Your task to perform on an android device: change timer sound Image 0: 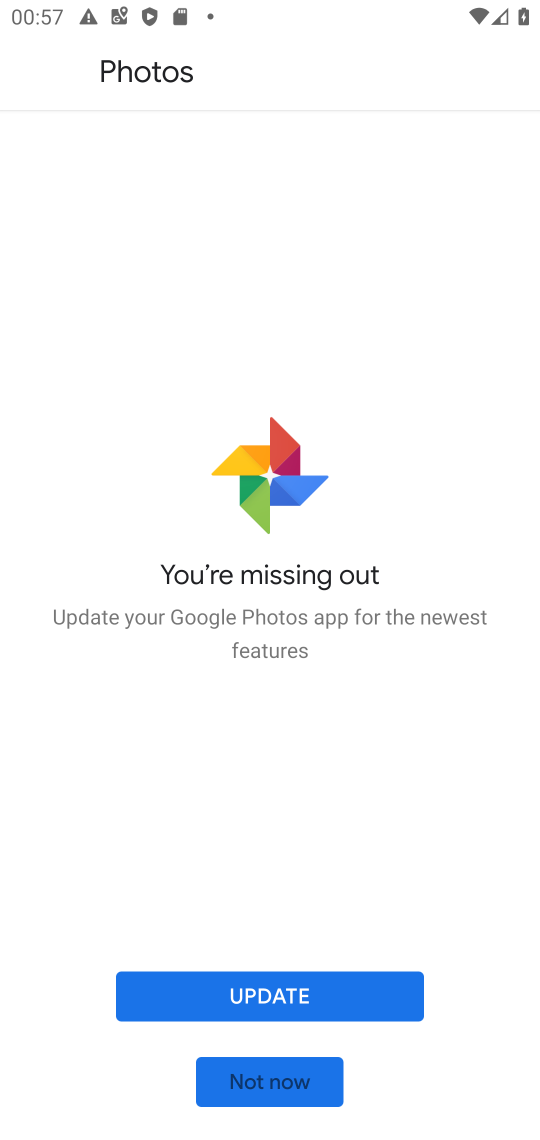
Step 0: press home button
Your task to perform on an android device: change timer sound Image 1: 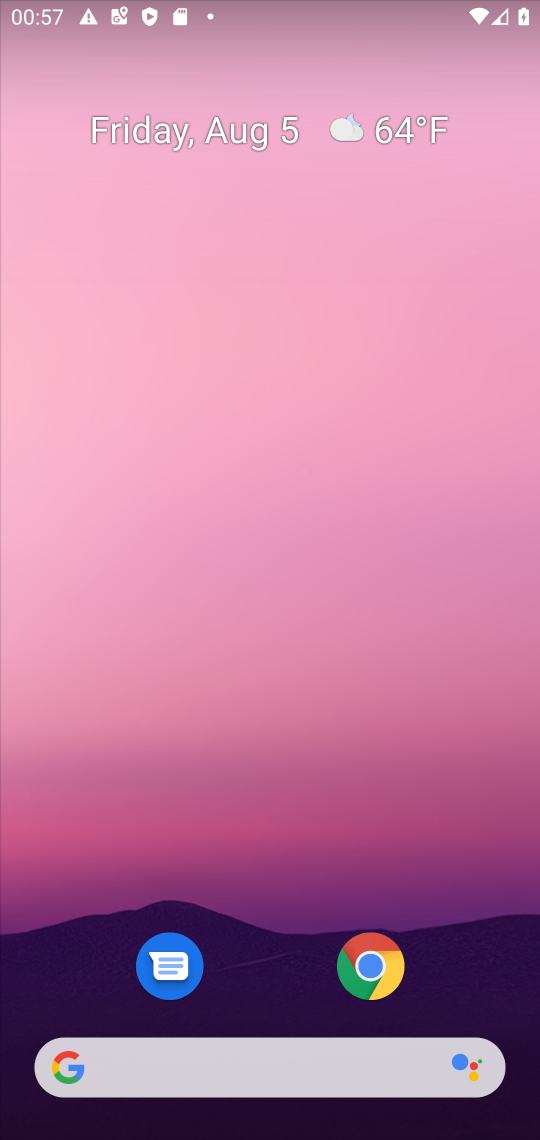
Step 1: drag from (262, 954) to (412, 62)
Your task to perform on an android device: change timer sound Image 2: 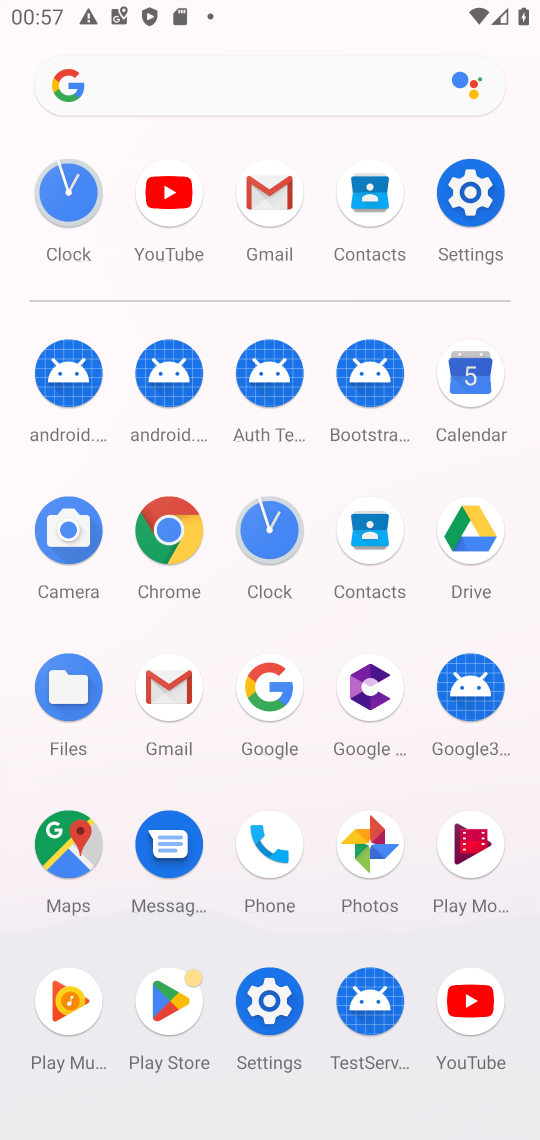
Step 2: click (284, 530)
Your task to perform on an android device: change timer sound Image 3: 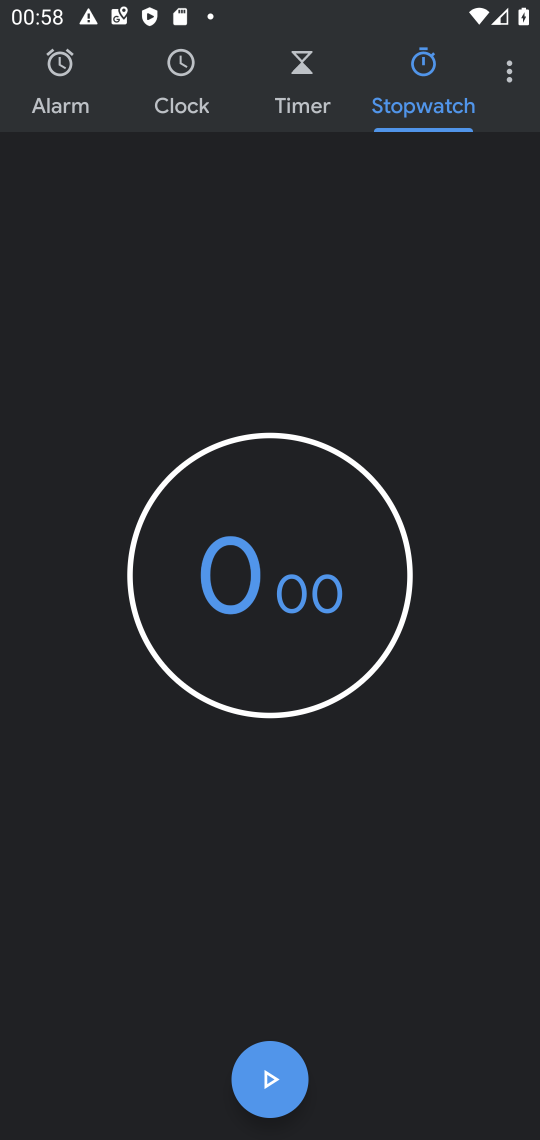
Step 3: click (506, 74)
Your task to perform on an android device: change timer sound Image 4: 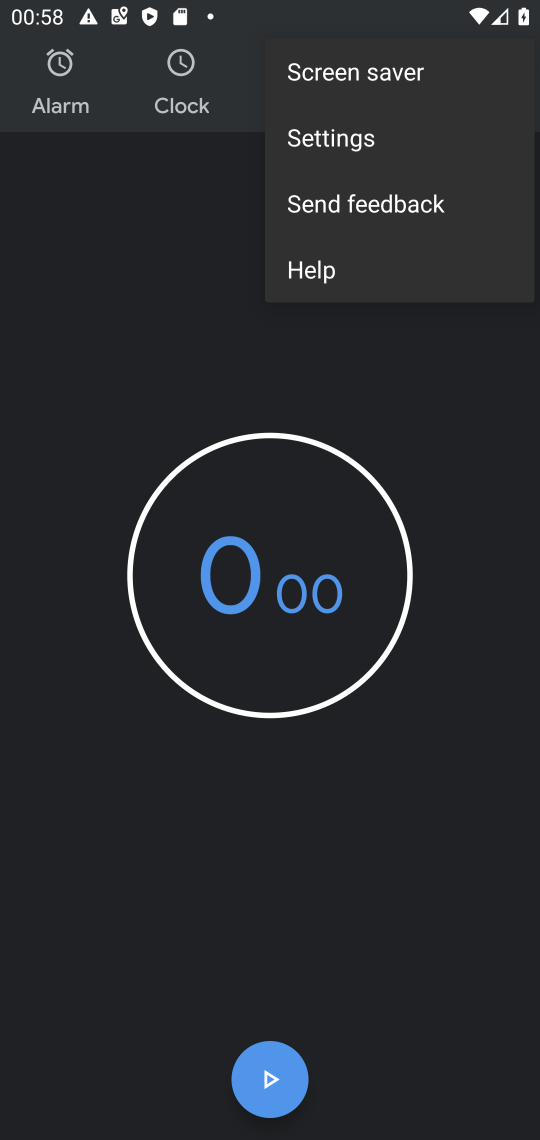
Step 4: click (389, 128)
Your task to perform on an android device: change timer sound Image 5: 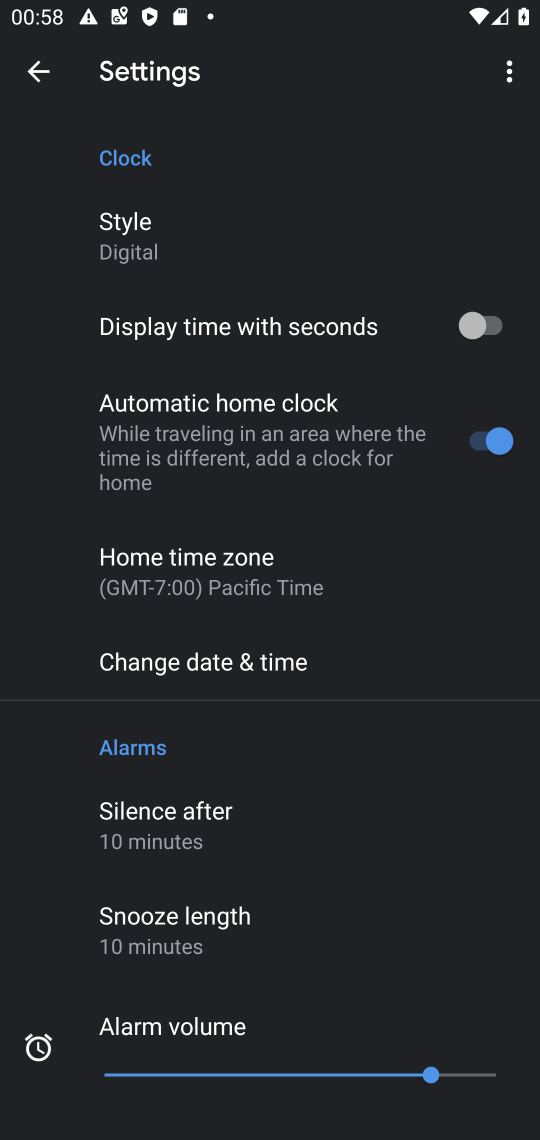
Step 5: drag from (245, 884) to (382, 0)
Your task to perform on an android device: change timer sound Image 6: 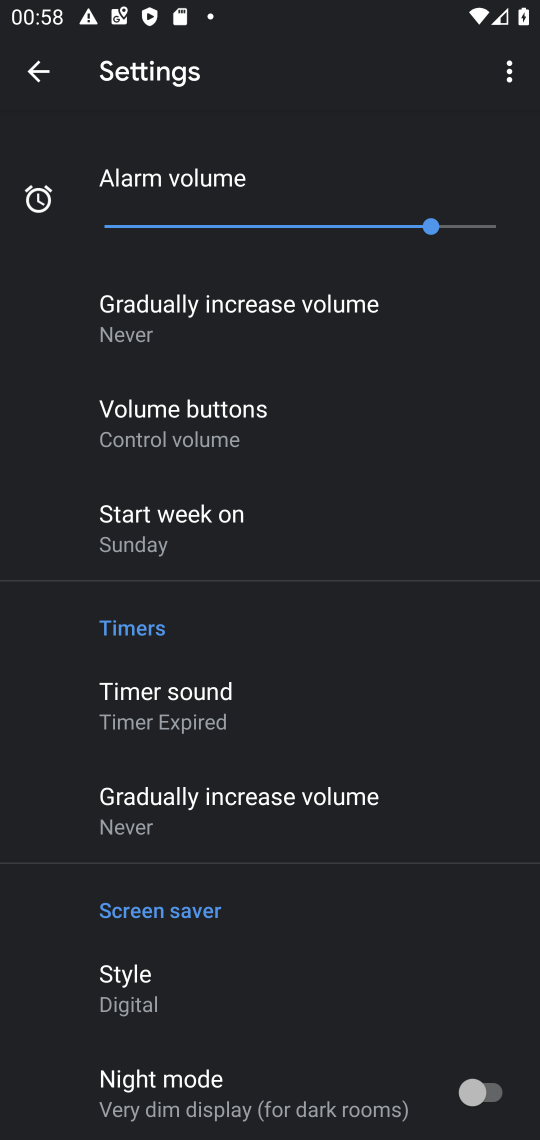
Step 6: click (239, 709)
Your task to perform on an android device: change timer sound Image 7: 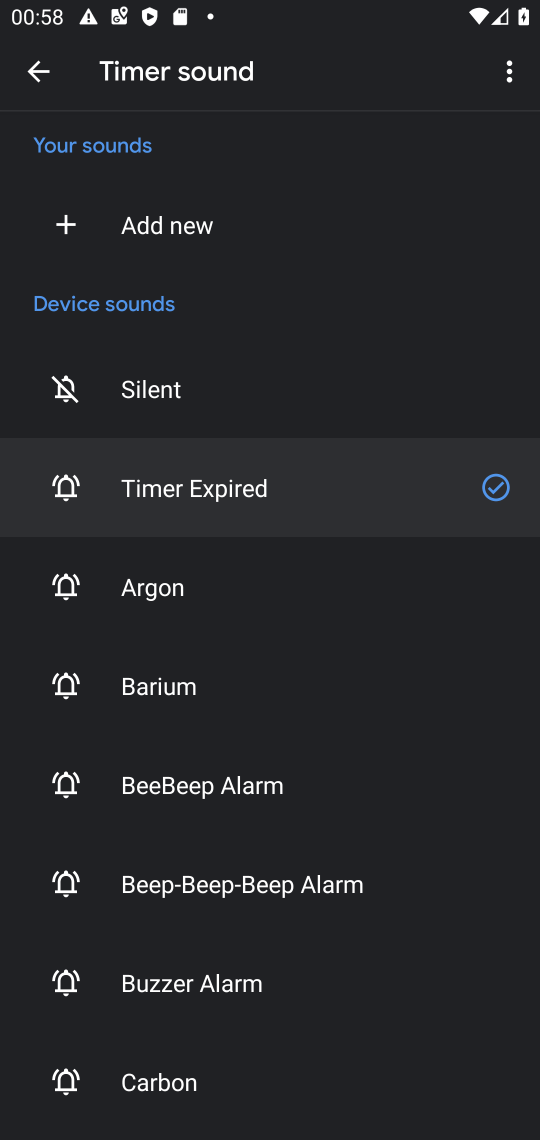
Step 7: click (178, 585)
Your task to perform on an android device: change timer sound Image 8: 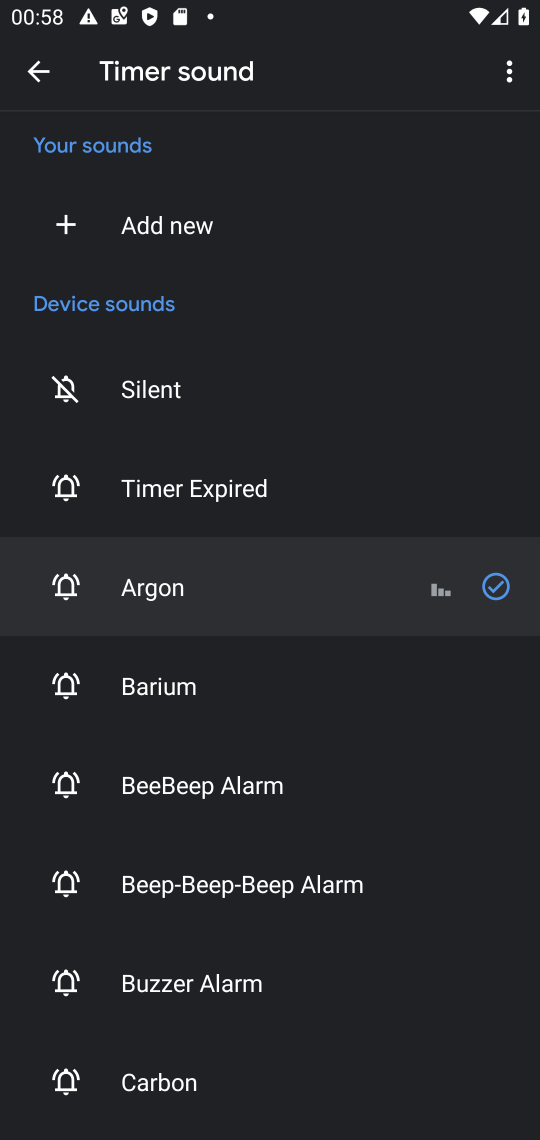
Step 8: task complete